Your task to perform on an android device: Search for Italian restaurants on Maps Image 0: 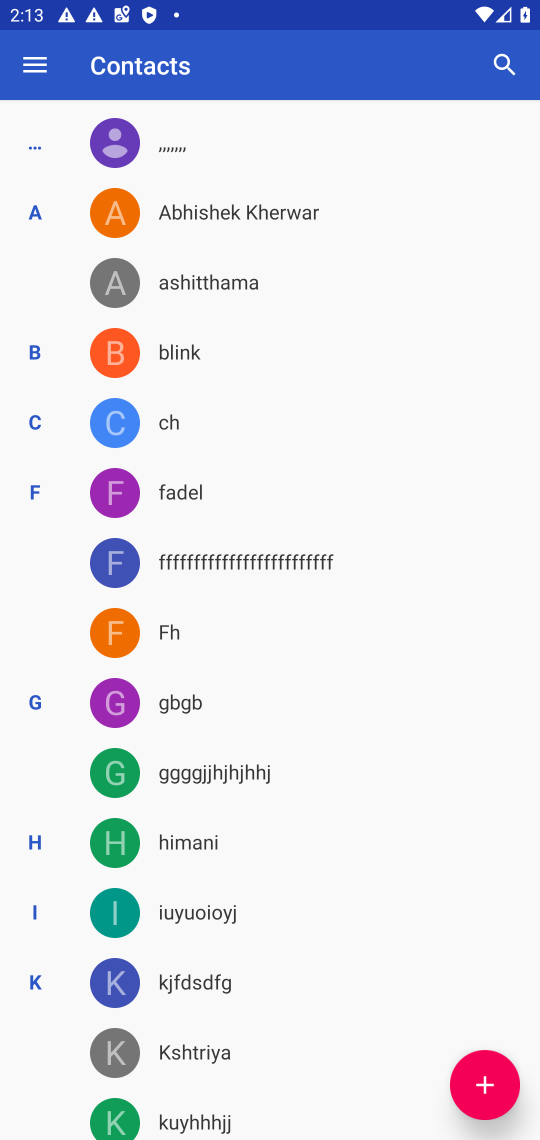
Step 0: press home button
Your task to perform on an android device: Search for Italian restaurants on Maps Image 1: 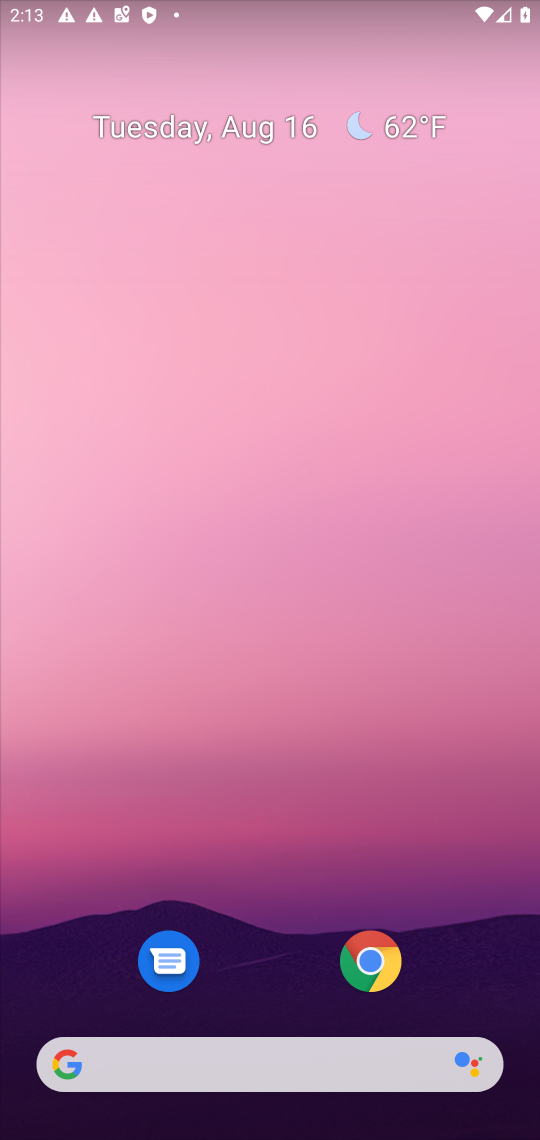
Step 1: drag from (489, 933) to (263, 143)
Your task to perform on an android device: Search for Italian restaurants on Maps Image 2: 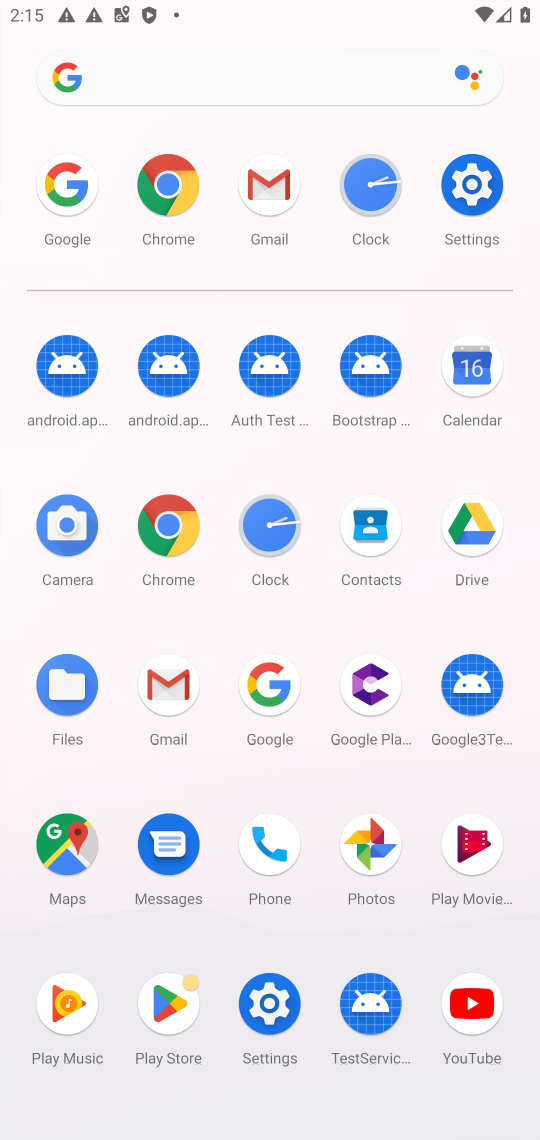
Step 2: click (68, 845)
Your task to perform on an android device: Search for Italian restaurants on Maps Image 3: 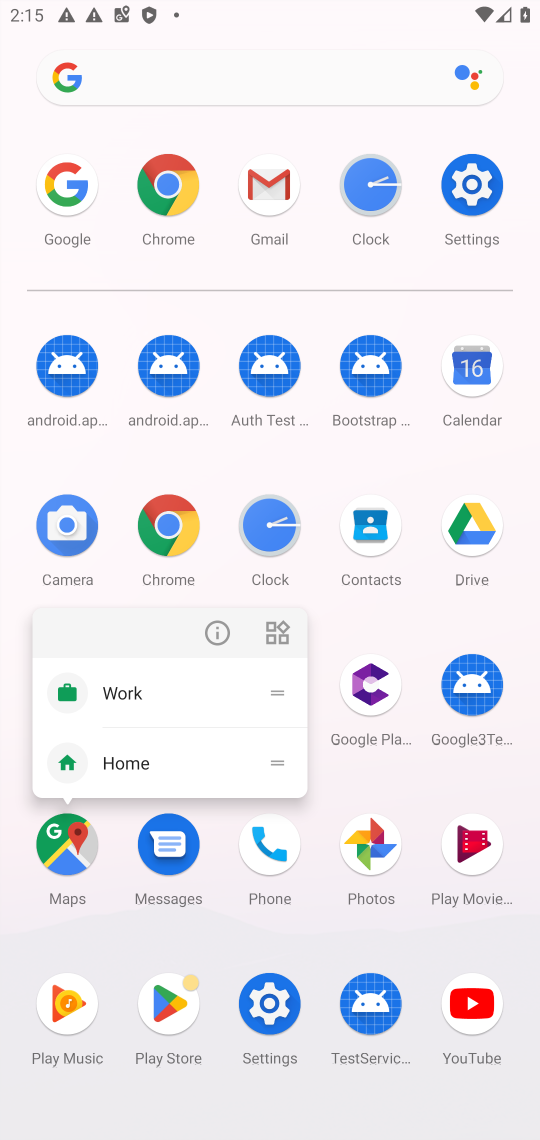
Step 3: click (54, 871)
Your task to perform on an android device: Search for Italian restaurants on Maps Image 4: 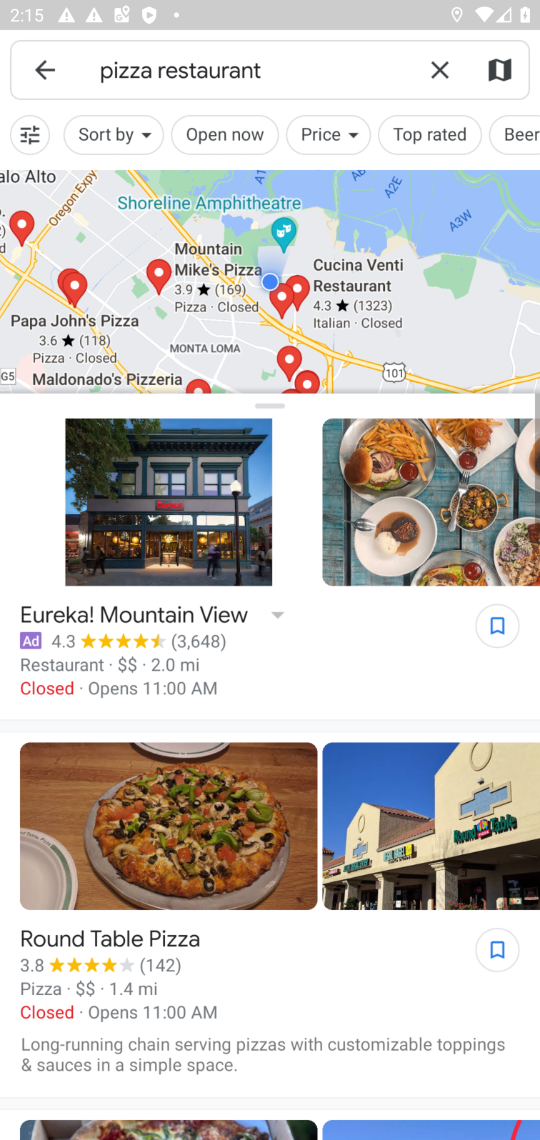
Step 4: click (435, 78)
Your task to perform on an android device: Search for Italian restaurants on Maps Image 5: 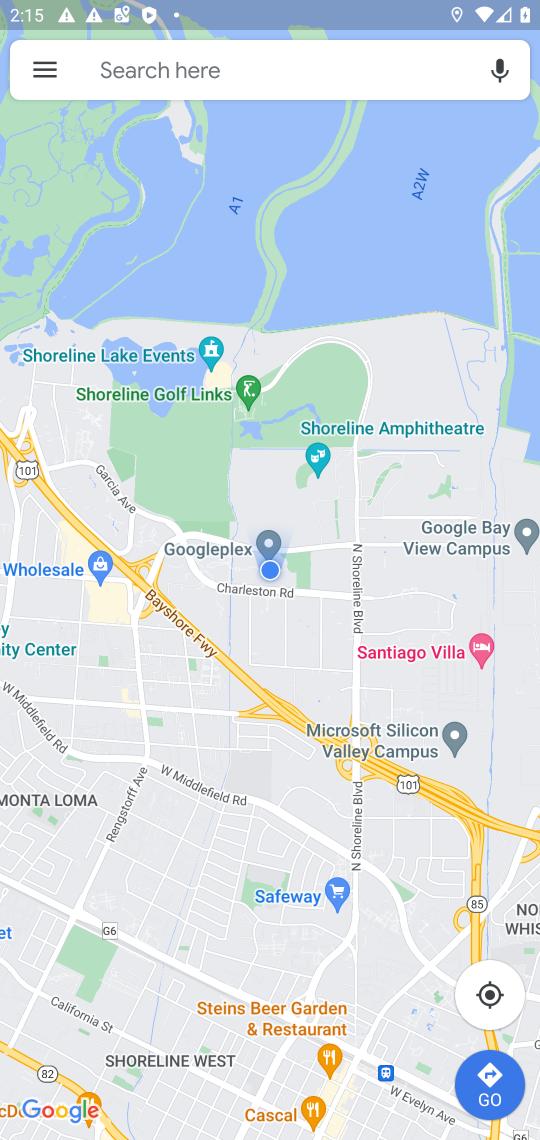
Step 5: click (131, 73)
Your task to perform on an android device: Search for Italian restaurants on Maps Image 6: 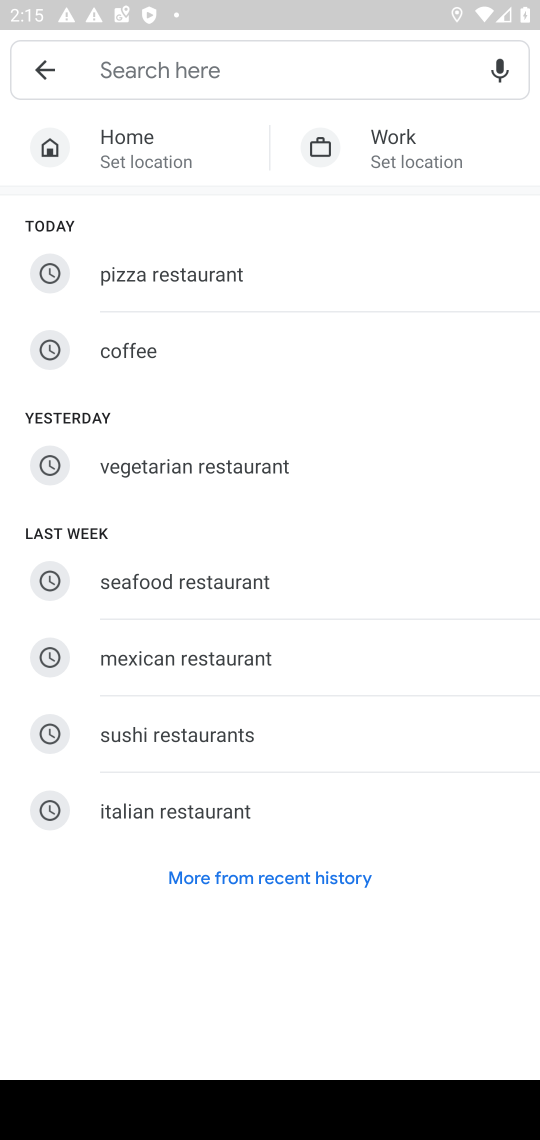
Step 6: type "Italian restaurants"
Your task to perform on an android device: Search for Italian restaurants on Maps Image 7: 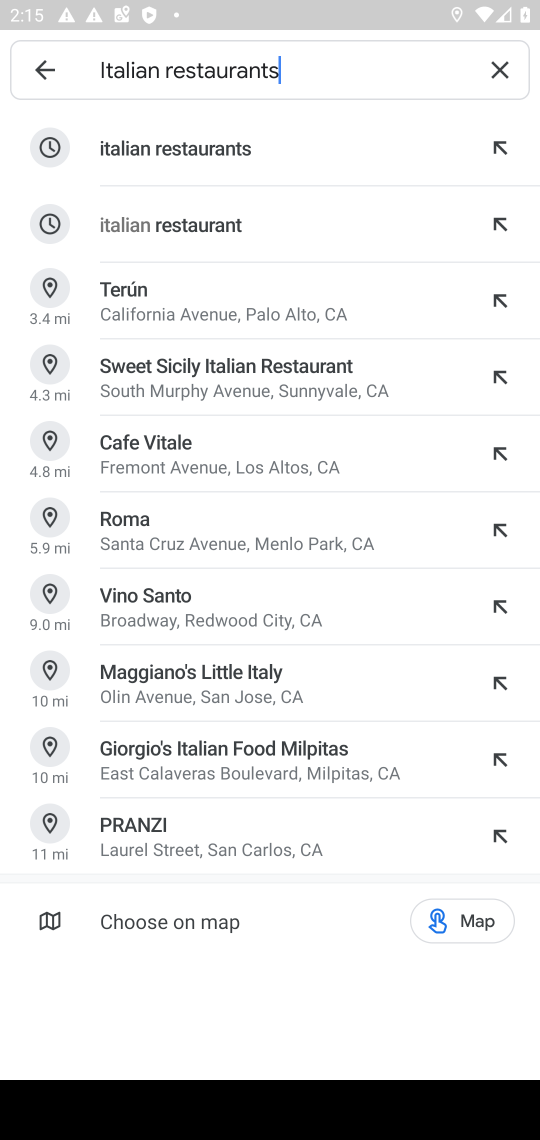
Step 7: click (203, 149)
Your task to perform on an android device: Search for Italian restaurants on Maps Image 8: 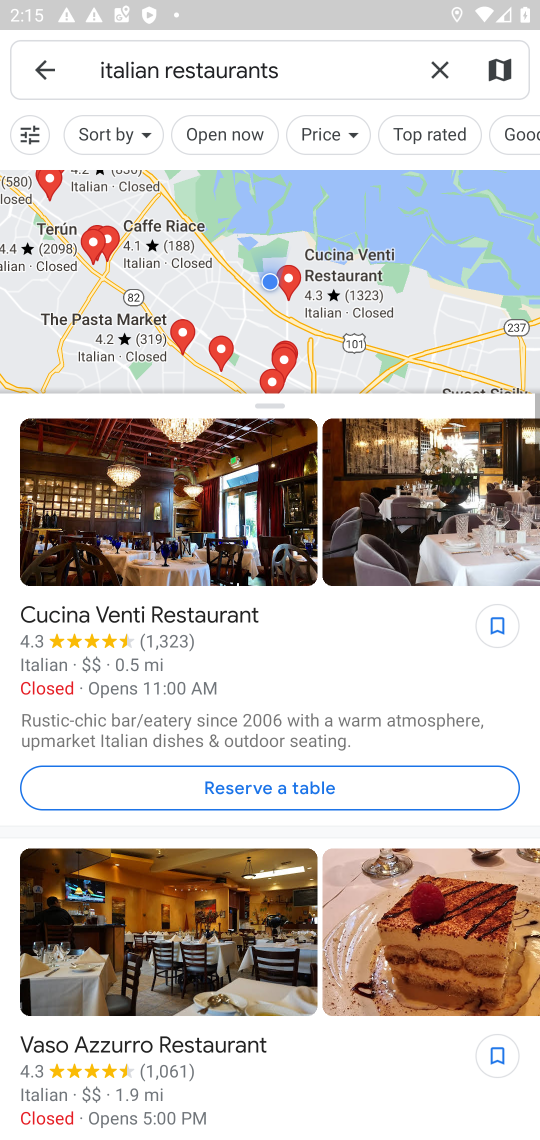
Step 8: task complete